Your task to perform on an android device: open app "AliExpress" (install if not already installed) Image 0: 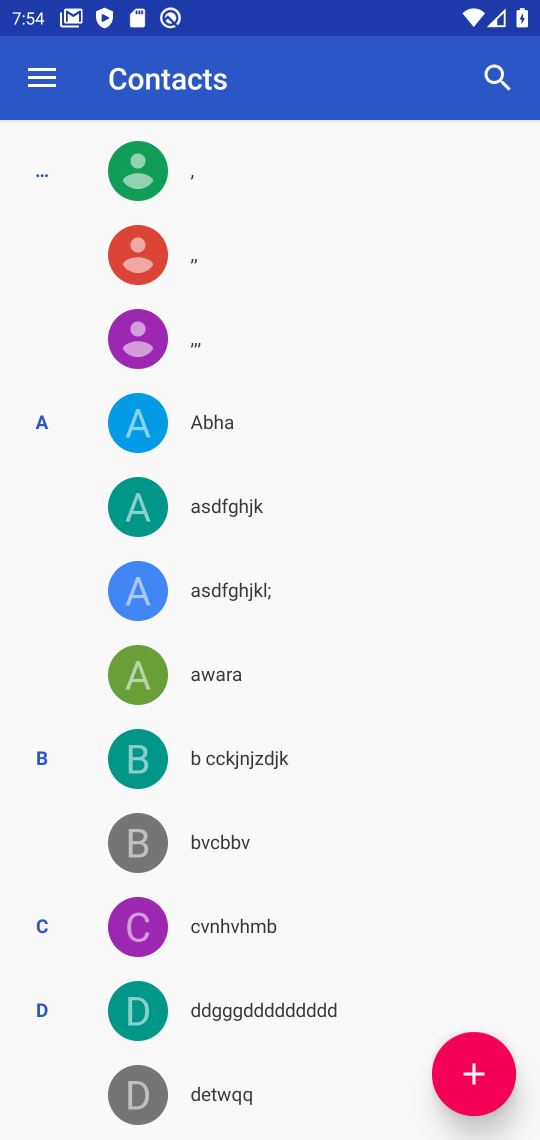
Step 0: press home button
Your task to perform on an android device: open app "AliExpress" (install if not already installed) Image 1: 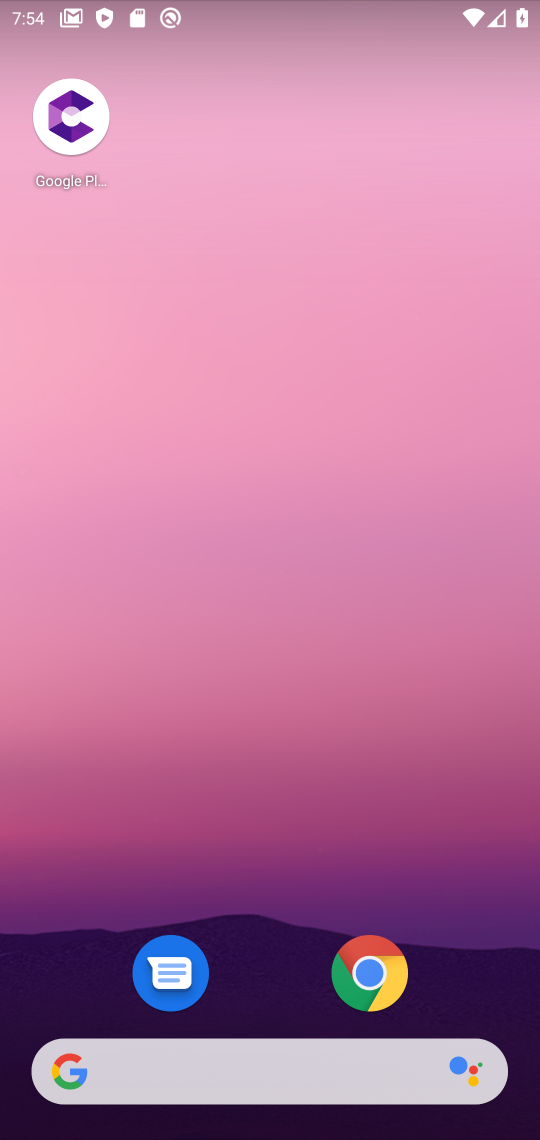
Step 1: click (208, 316)
Your task to perform on an android device: open app "AliExpress" (install if not already installed) Image 2: 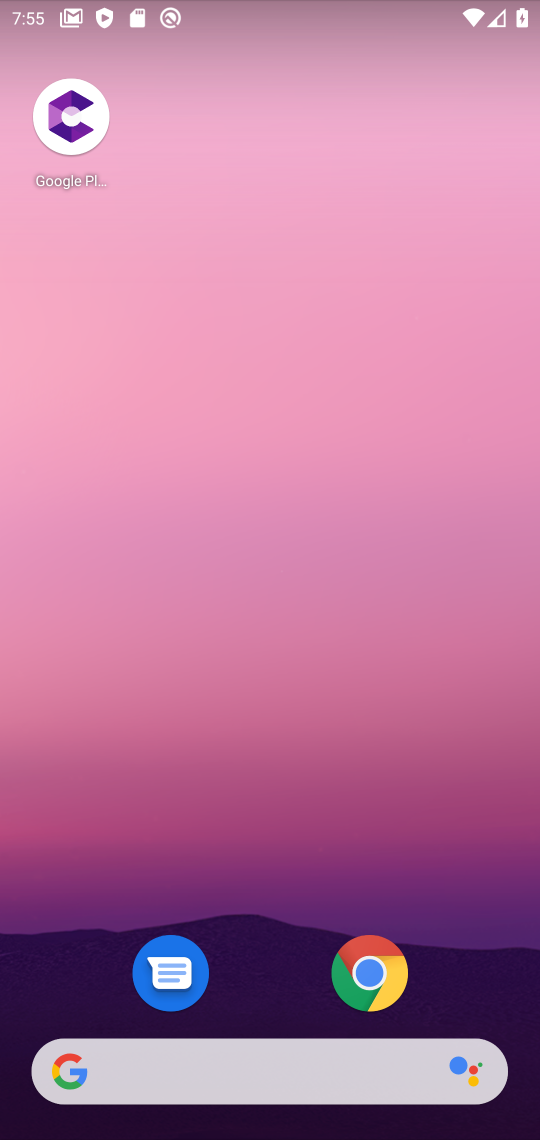
Step 2: drag from (280, 957) to (256, 236)
Your task to perform on an android device: open app "AliExpress" (install if not already installed) Image 3: 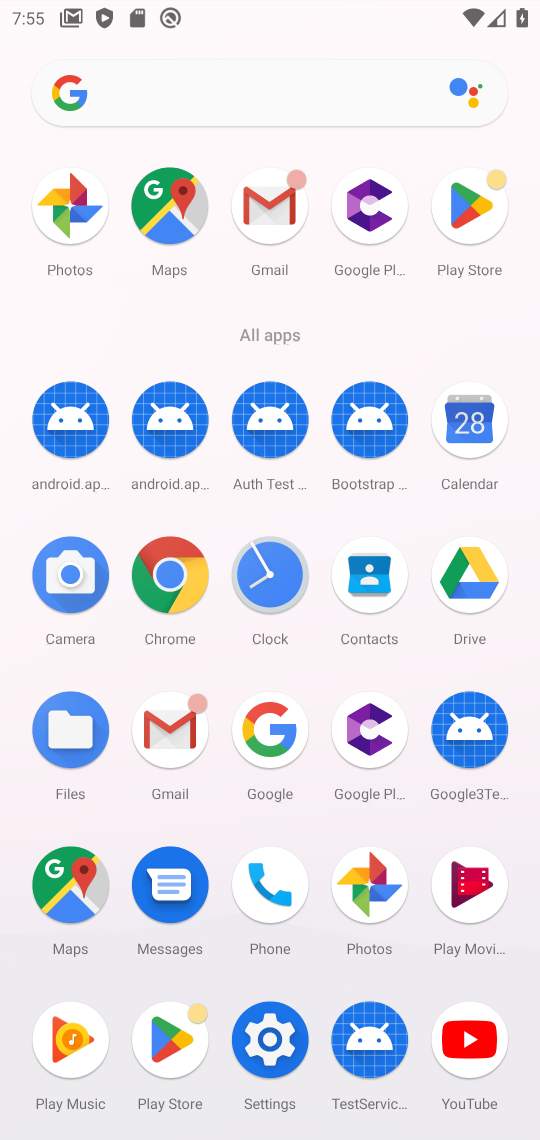
Step 3: click (466, 222)
Your task to perform on an android device: open app "AliExpress" (install if not already installed) Image 4: 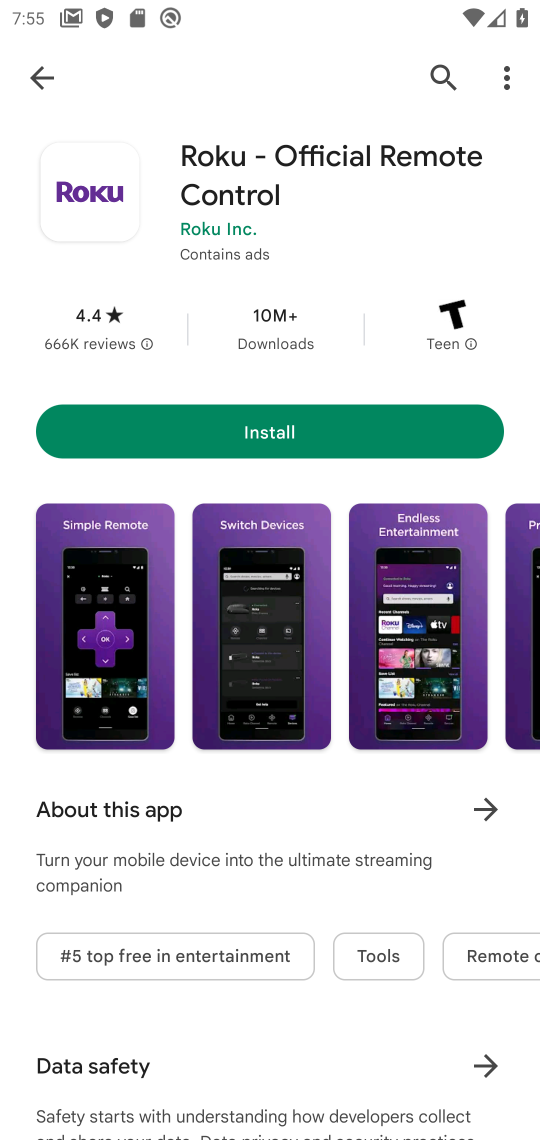
Step 4: click (441, 74)
Your task to perform on an android device: open app "AliExpress" (install if not already installed) Image 5: 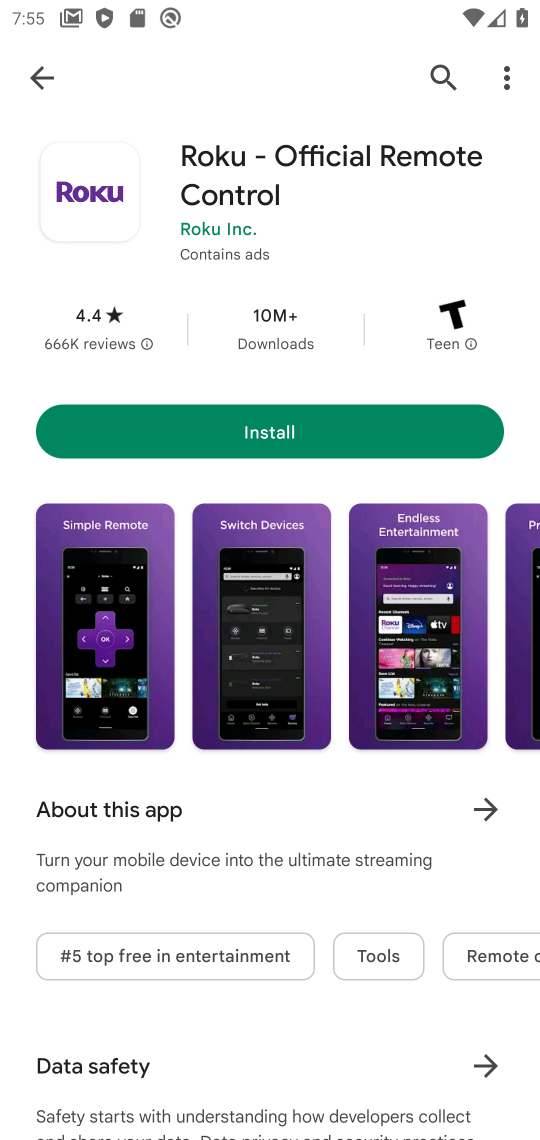
Step 5: click (437, 86)
Your task to perform on an android device: open app "AliExpress" (install if not already installed) Image 6: 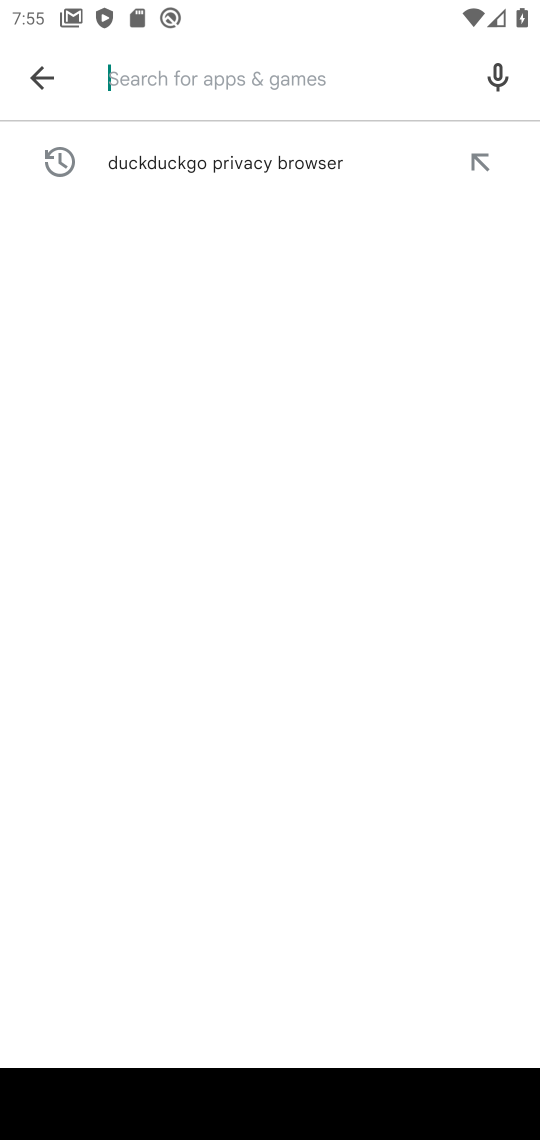
Step 6: type "AliExpress"
Your task to perform on an android device: open app "AliExpress" (install if not already installed) Image 7: 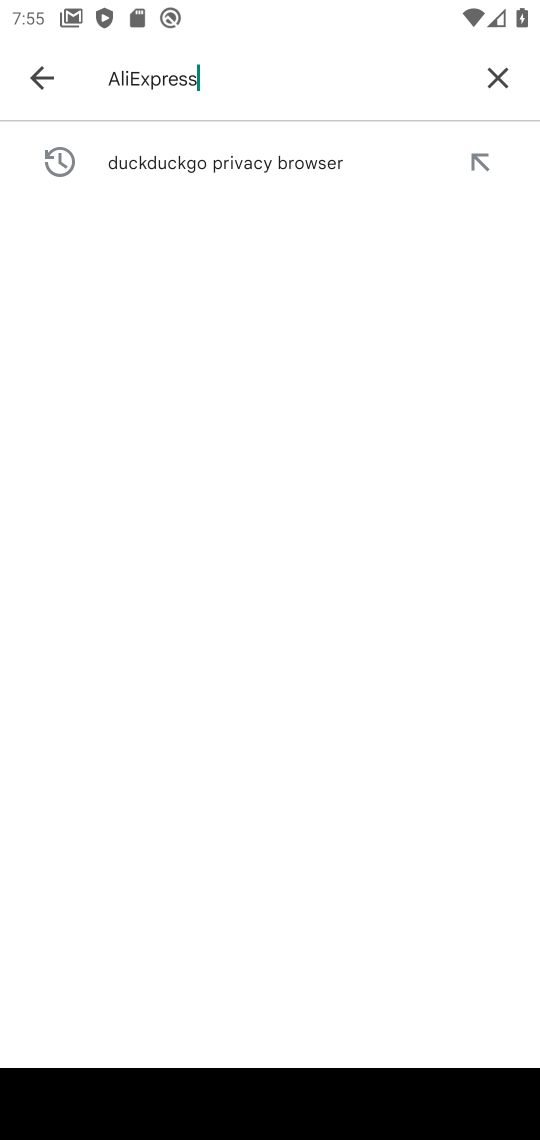
Step 7: type ""
Your task to perform on an android device: open app "AliExpress" (install if not already installed) Image 8: 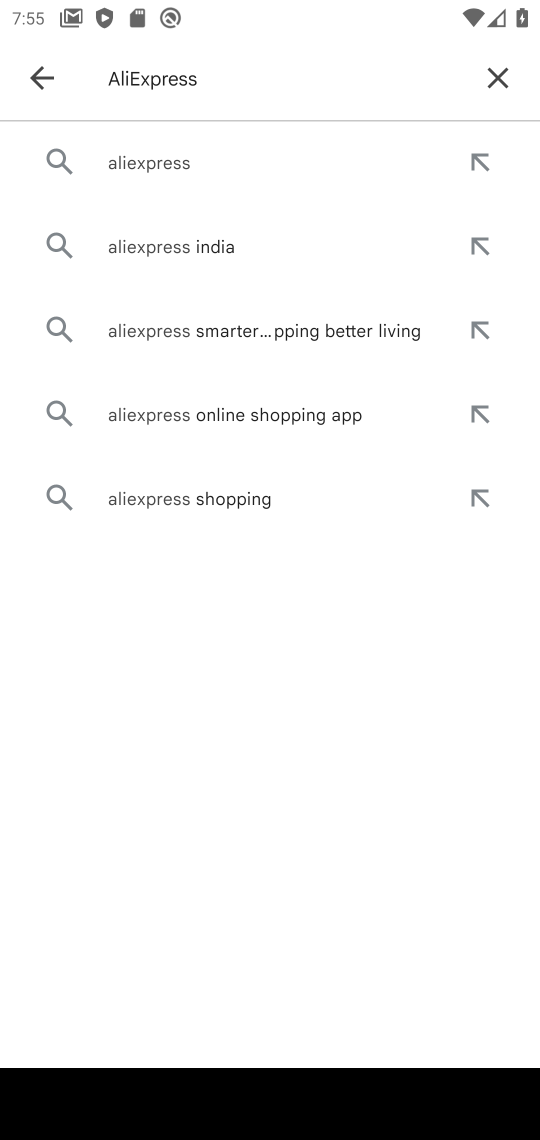
Step 8: click (178, 164)
Your task to perform on an android device: open app "AliExpress" (install if not already installed) Image 9: 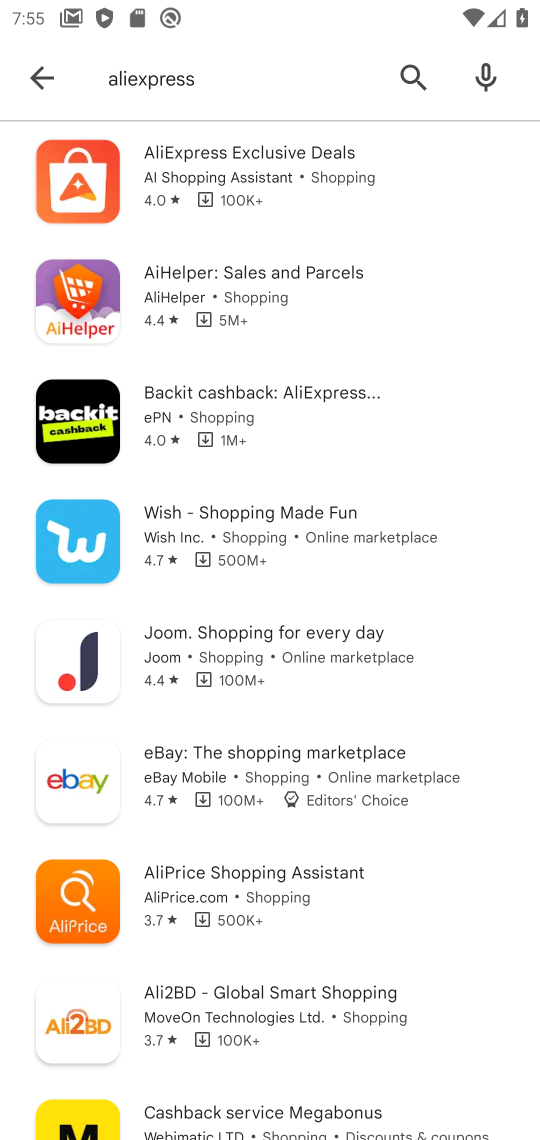
Step 9: click (198, 182)
Your task to perform on an android device: open app "AliExpress" (install if not already installed) Image 10: 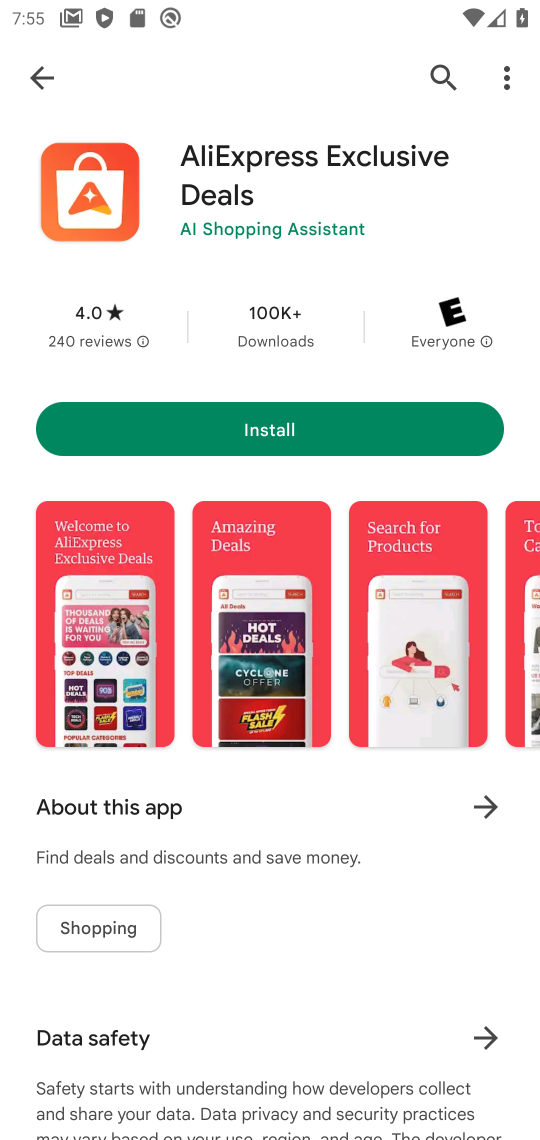
Step 10: click (299, 448)
Your task to perform on an android device: open app "AliExpress" (install if not already installed) Image 11: 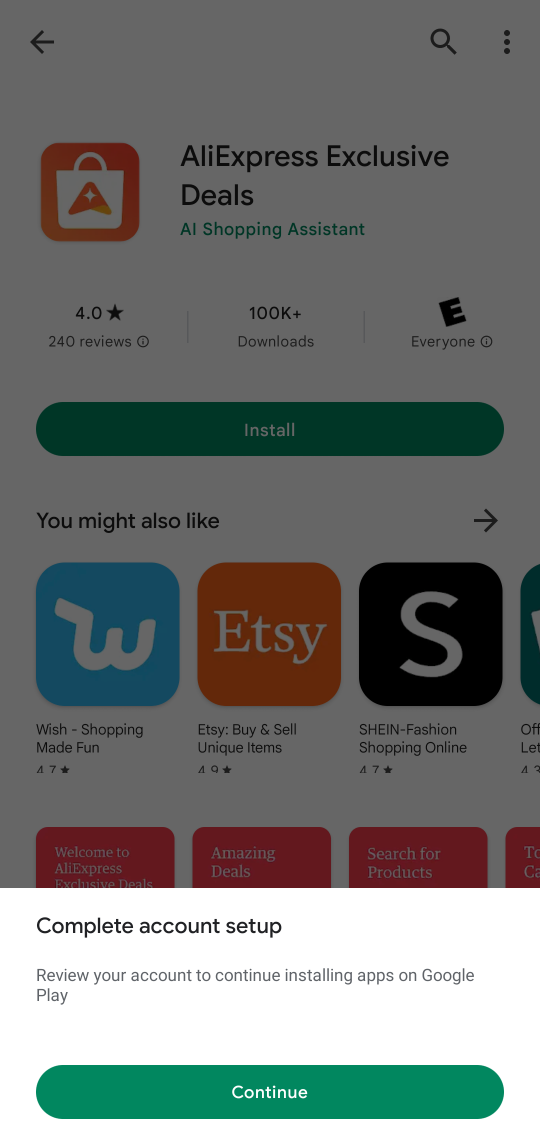
Step 11: click (309, 1105)
Your task to perform on an android device: open app "AliExpress" (install if not already installed) Image 12: 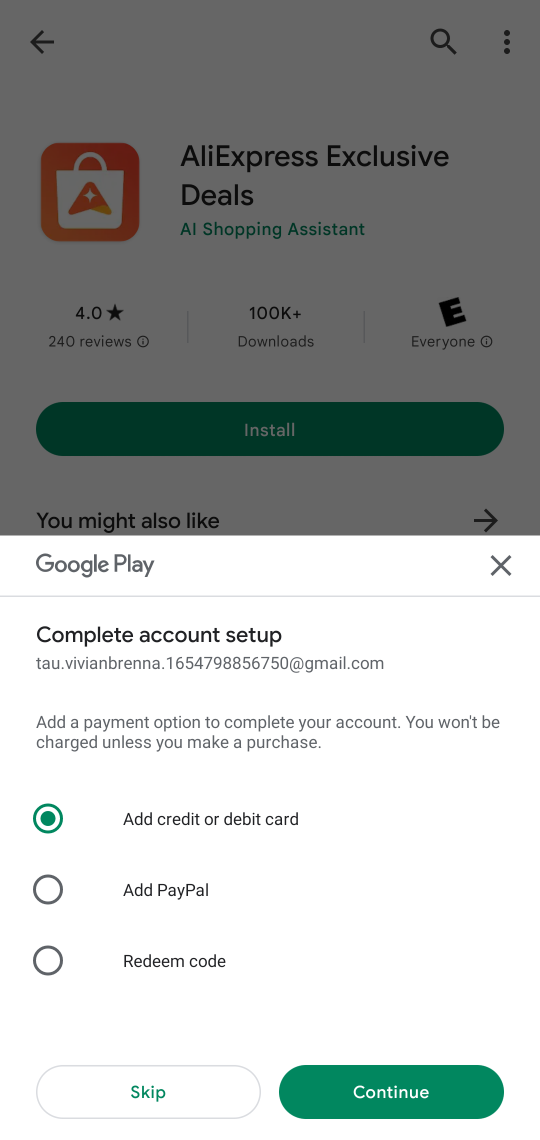
Step 12: click (206, 1105)
Your task to perform on an android device: open app "AliExpress" (install if not already installed) Image 13: 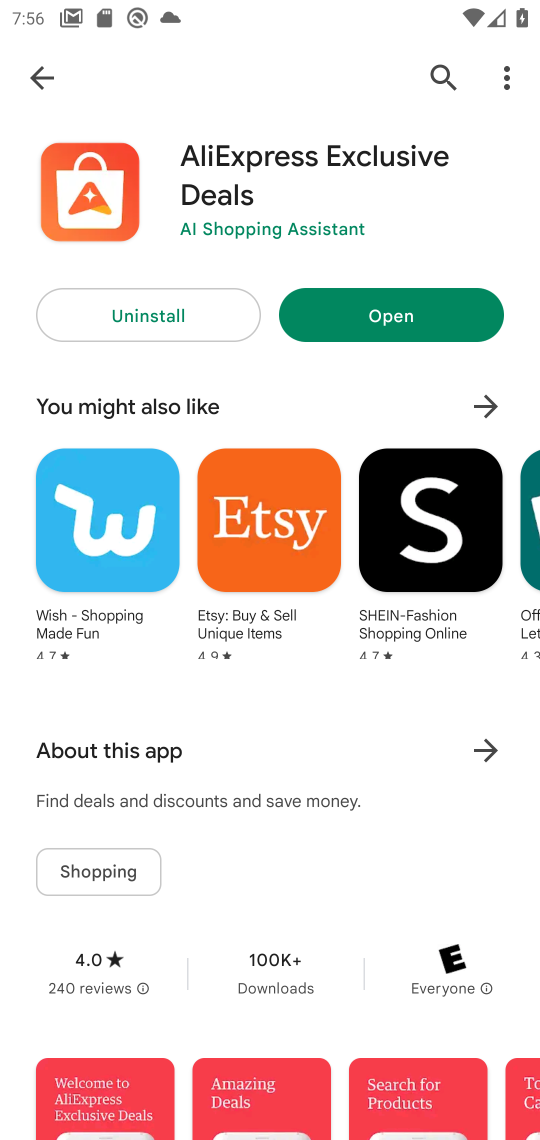
Step 13: click (375, 328)
Your task to perform on an android device: open app "AliExpress" (install if not already installed) Image 14: 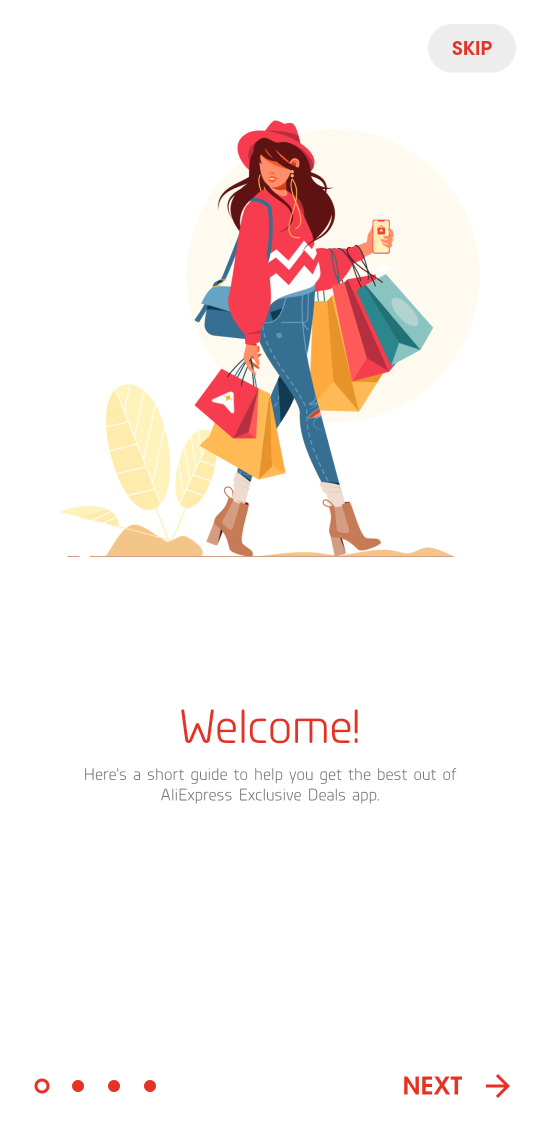
Step 14: task complete